Your task to perform on an android device: Go to network settings Image 0: 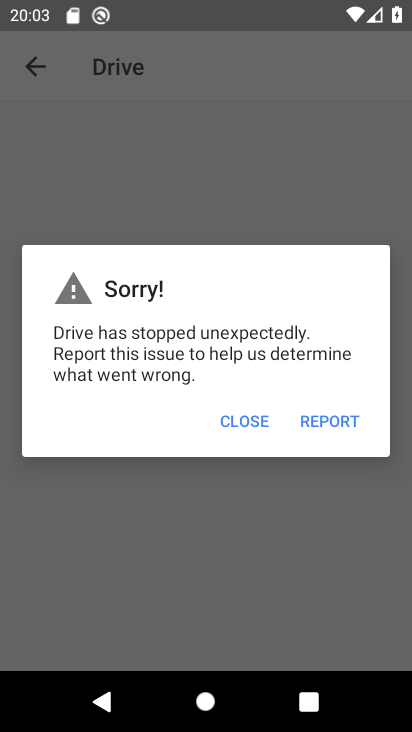
Step 0: press home button
Your task to perform on an android device: Go to network settings Image 1: 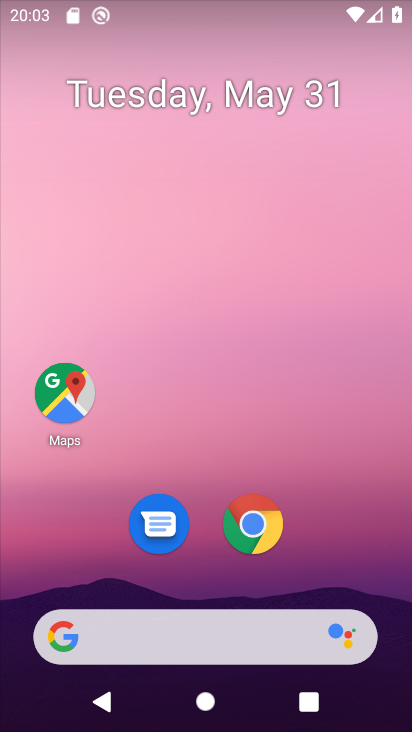
Step 1: drag from (329, 558) to (382, 2)
Your task to perform on an android device: Go to network settings Image 2: 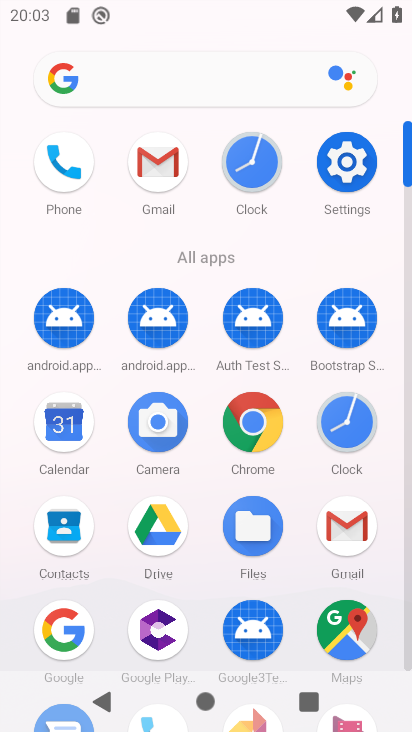
Step 2: click (346, 156)
Your task to perform on an android device: Go to network settings Image 3: 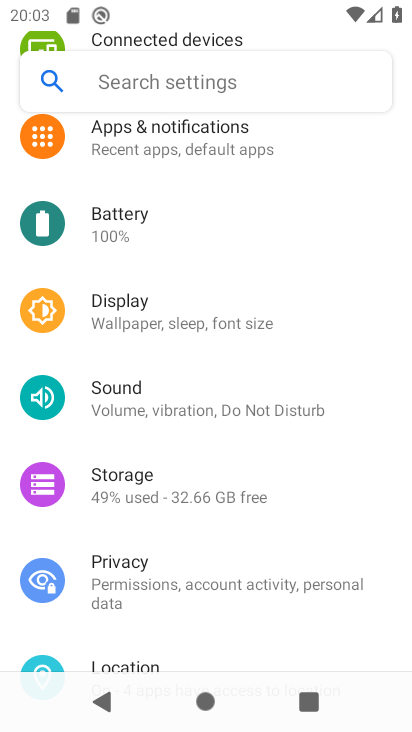
Step 3: drag from (215, 204) to (239, 549)
Your task to perform on an android device: Go to network settings Image 4: 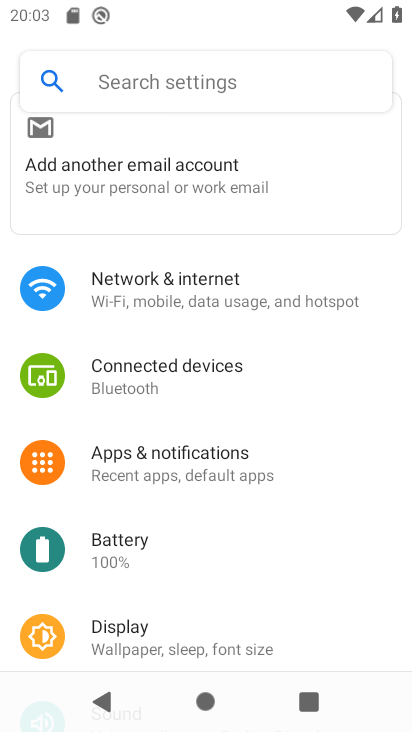
Step 4: click (235, 292)
Your task to perform on an android device: Go to network settings Image 5: 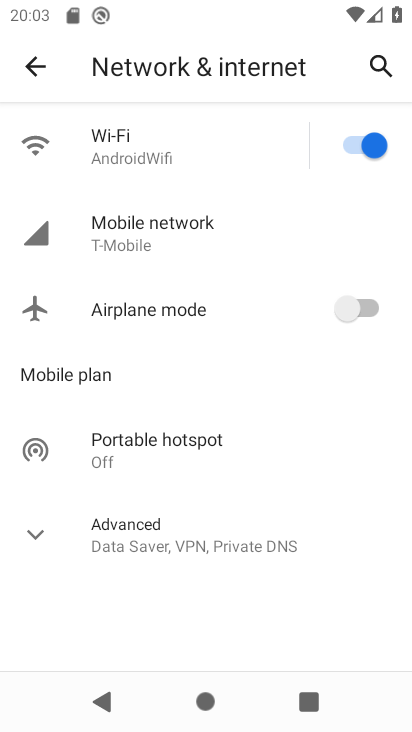
Step 5: task complete